Your task to perform on an android device: install app "Venmo" Image 0: 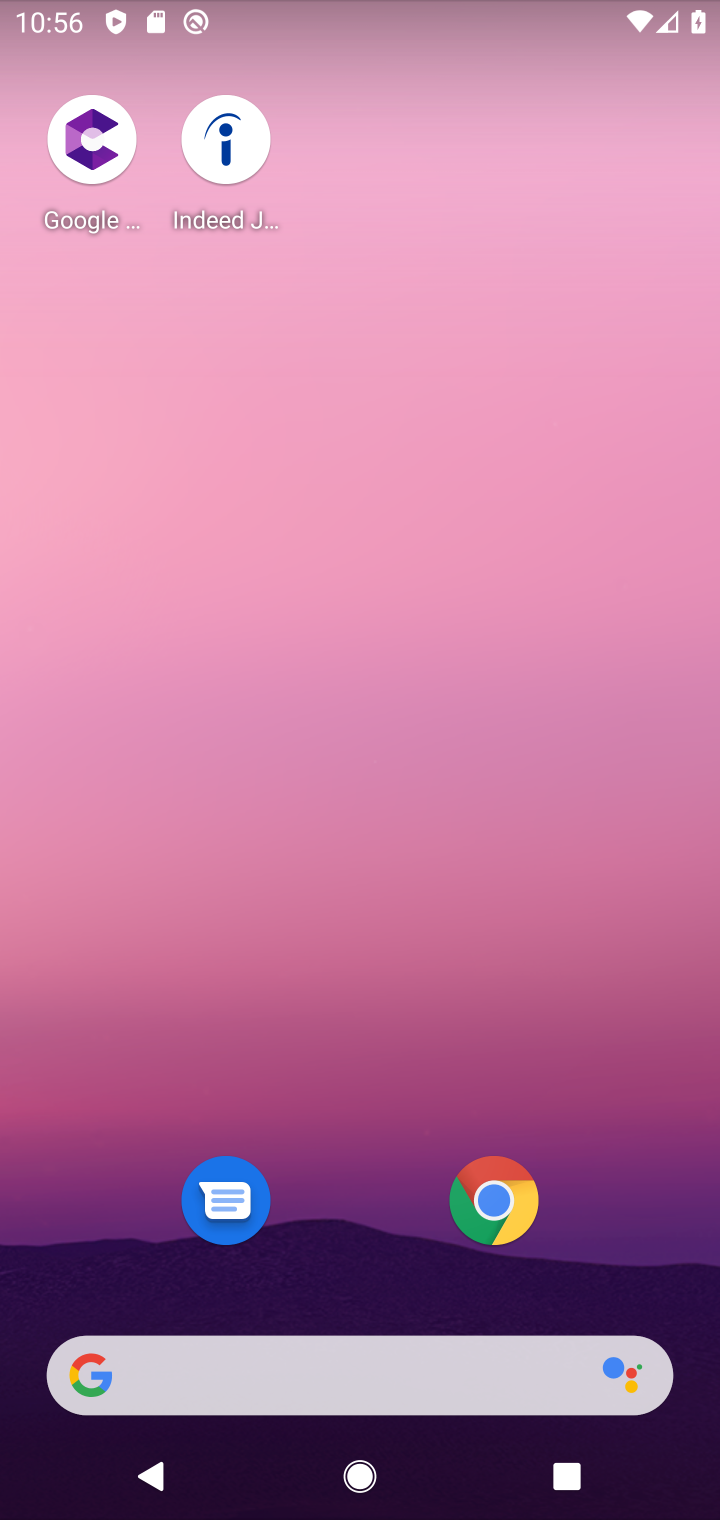
Step 0: drag from (362, 993) to (358, 183)
Your task to perform on an android device: install app "Venmo" Image 1: 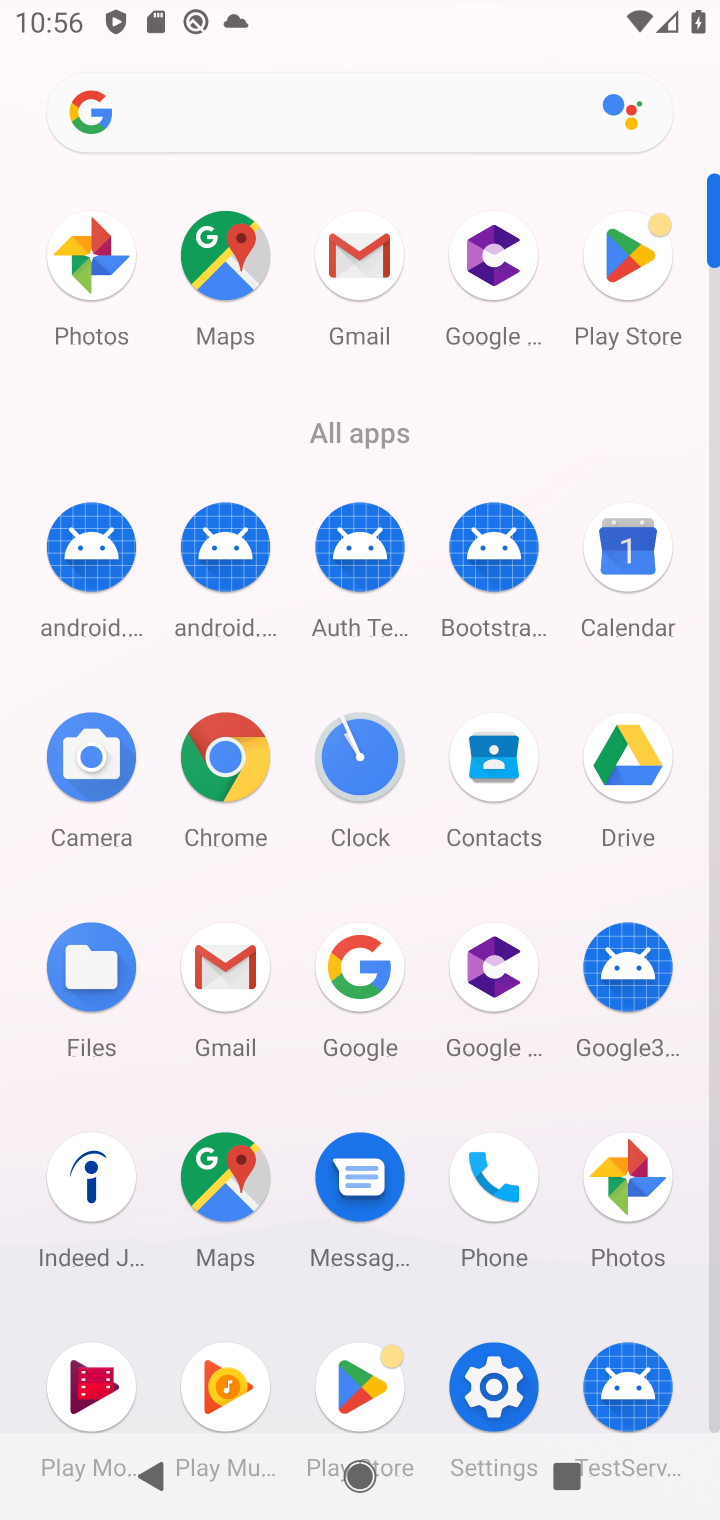
Step 1: click (630, 271)
Your task to perform on an android device: install app "Venmo" Image 2: 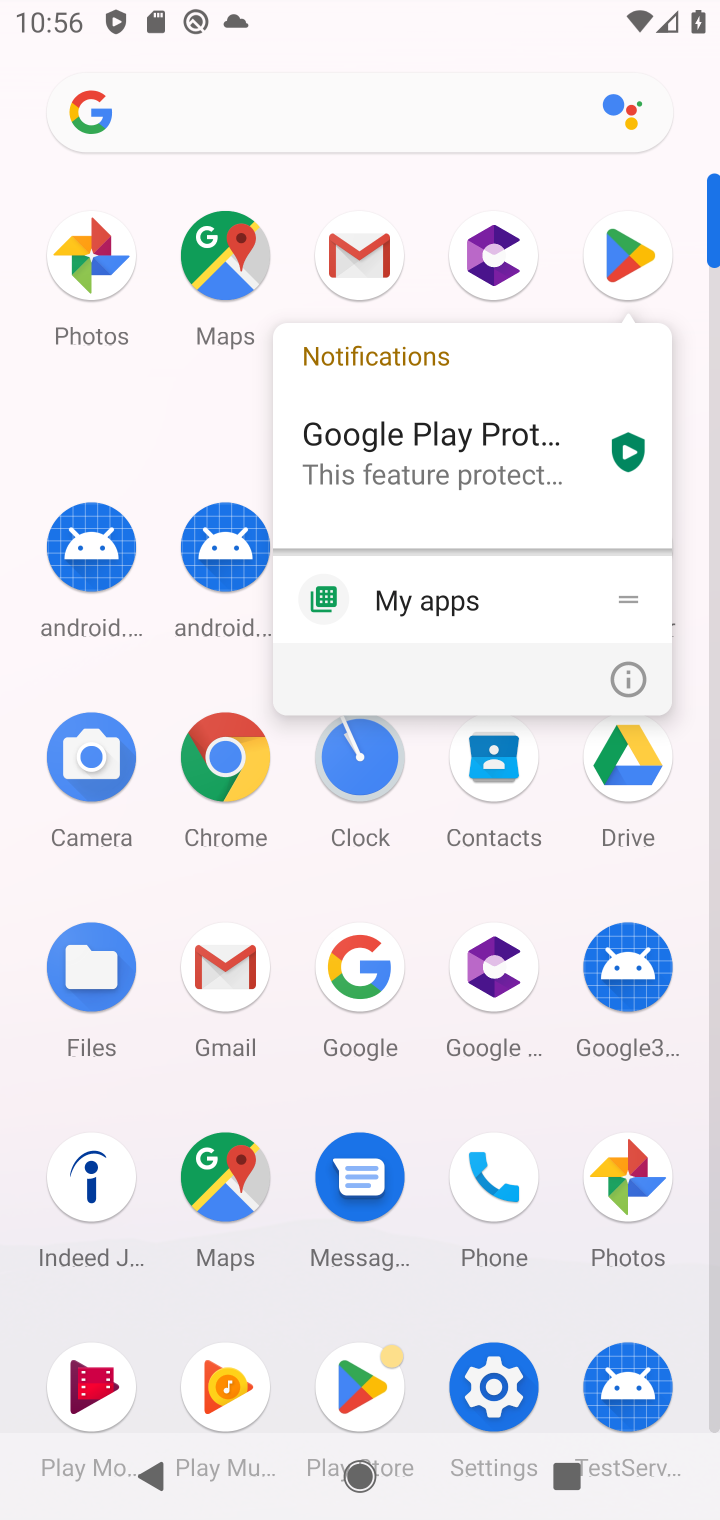
Step 2: click (628, 258)
Your task to perform on an android device: install app "Venmo" Image 3: 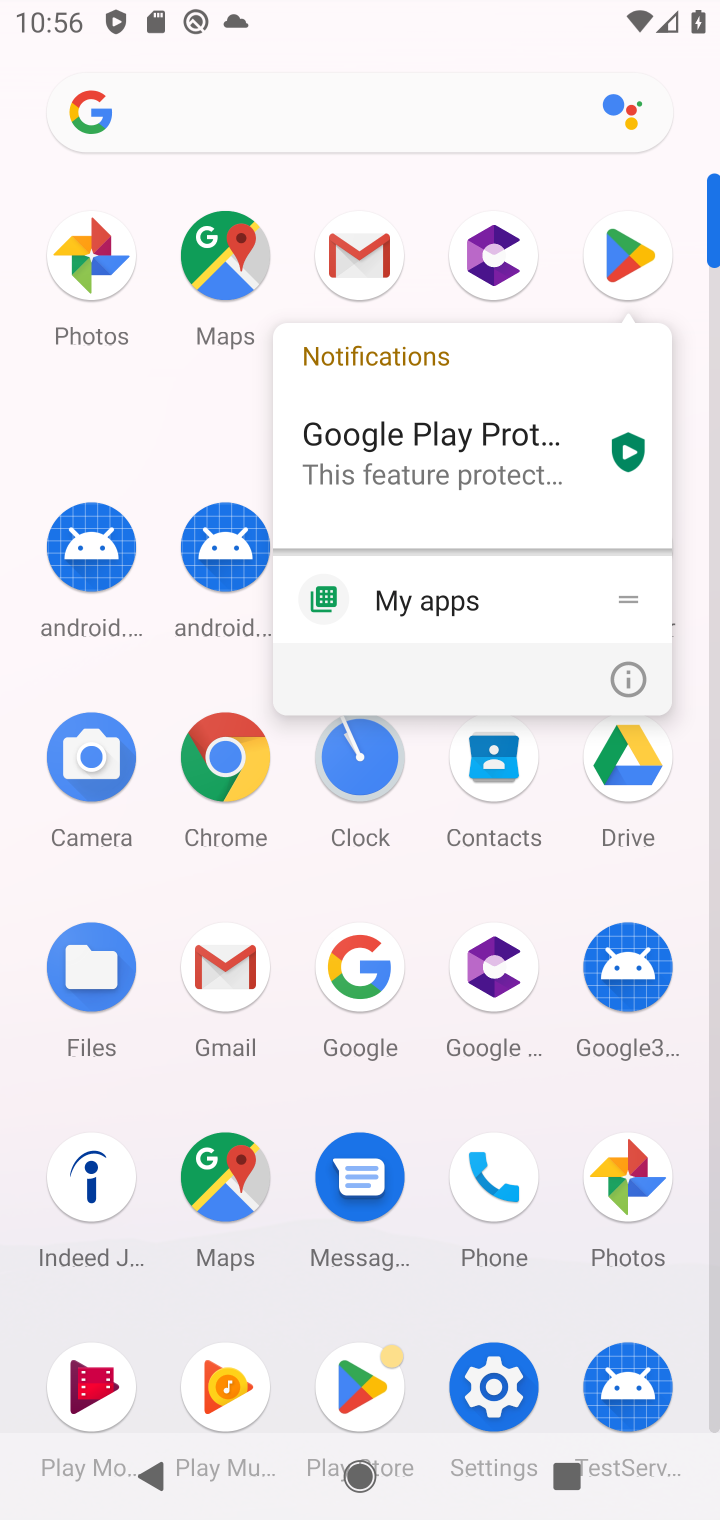
Step 3: click (628, 258)
Your task to perform on an android device: install app "Venmo" Image 4: 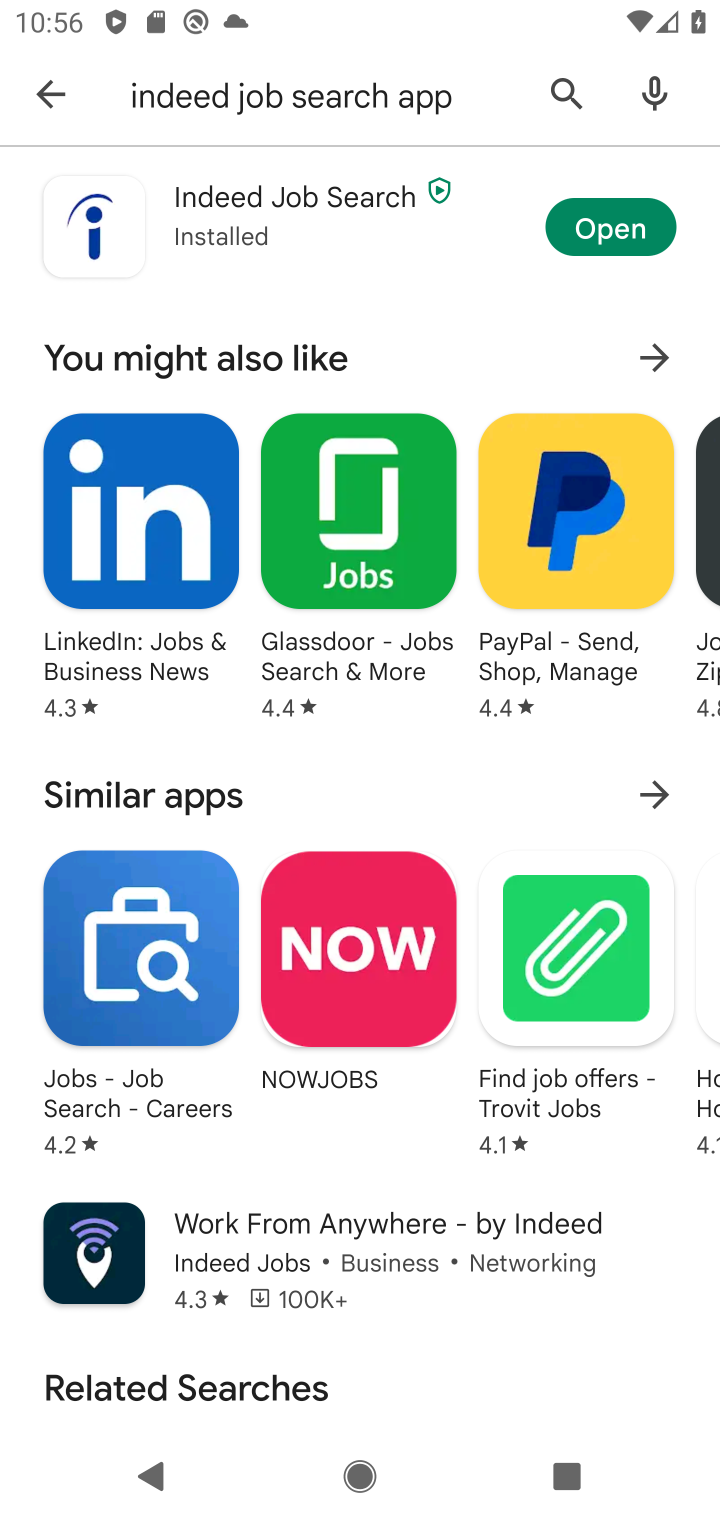
Step 4: click (556, 95)
Your task to perform on an android device: install app "Venmo" Image 5: 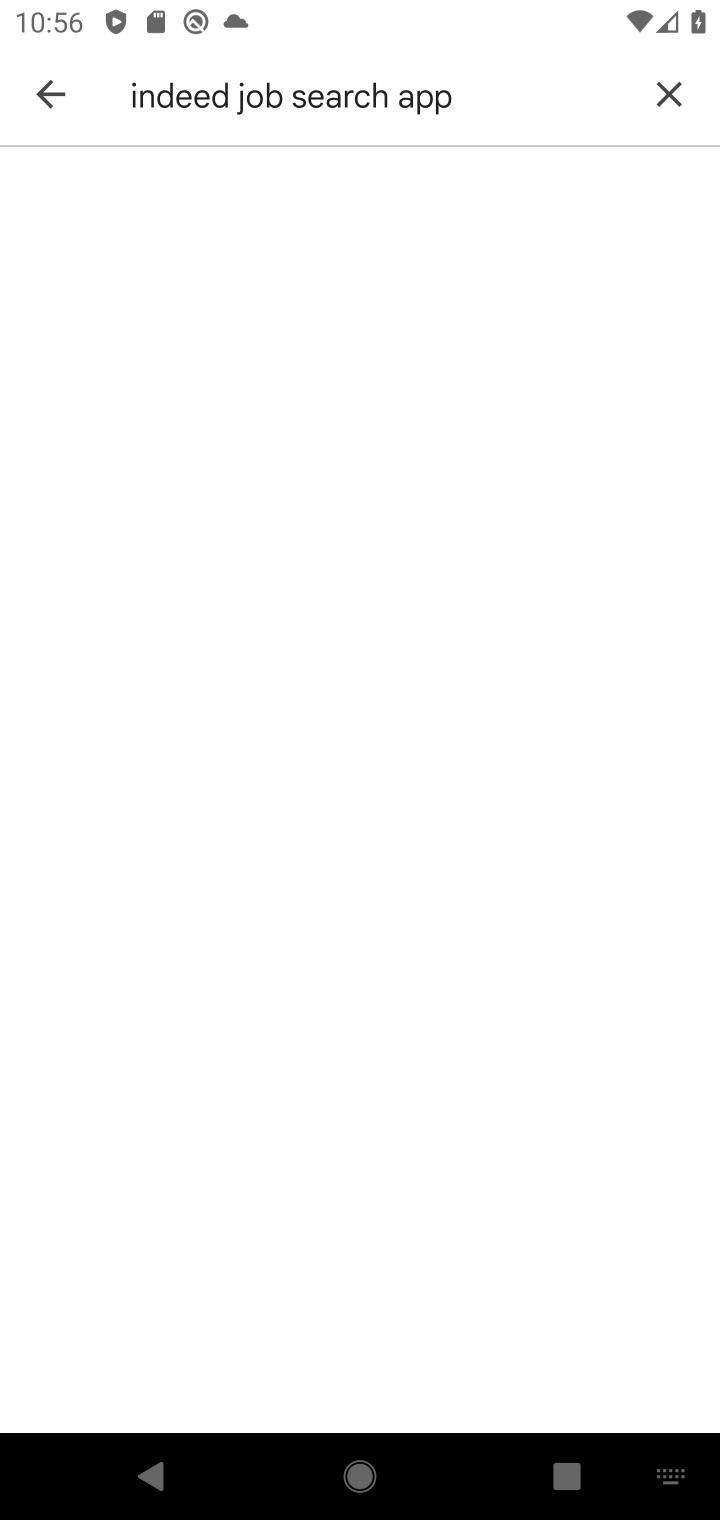
Step 5: click (656, 104)
Your task to perform on an android device: install app "Venmo" Image 6: 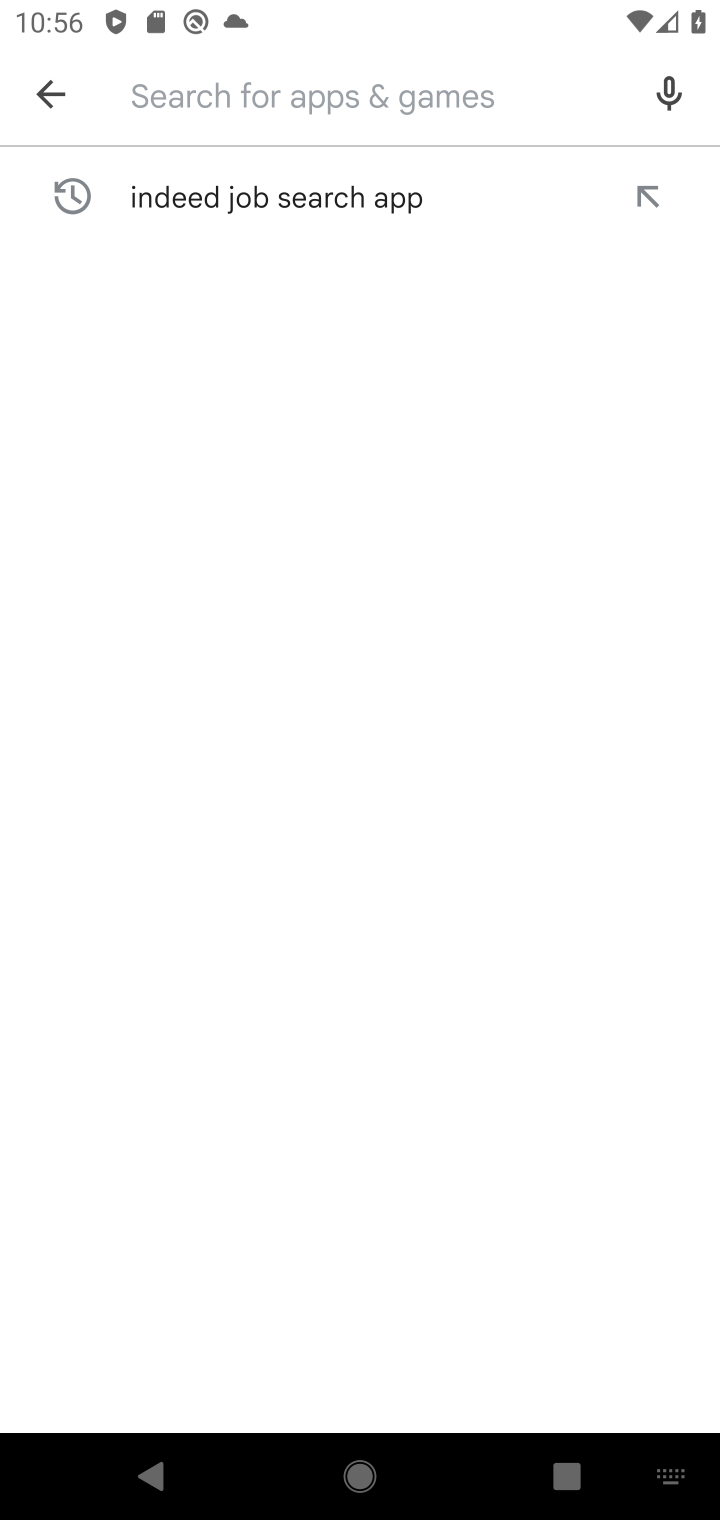
Step 6: type "Venmo"
Your task to perform on an android device: install app "Venmo" Image 7: 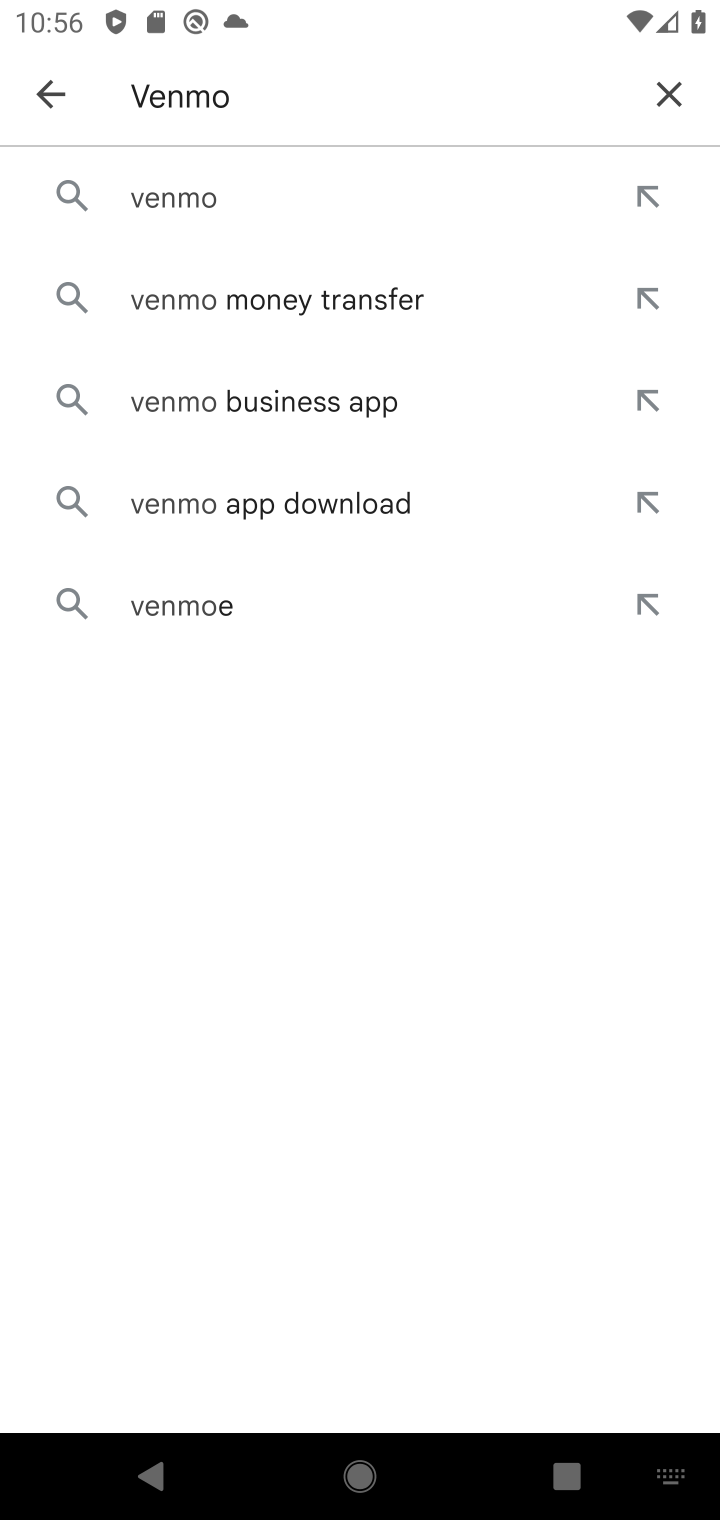
Step 7: click (171, 190)
Your task to perform on an android device: install app "Venmo" Image 8: 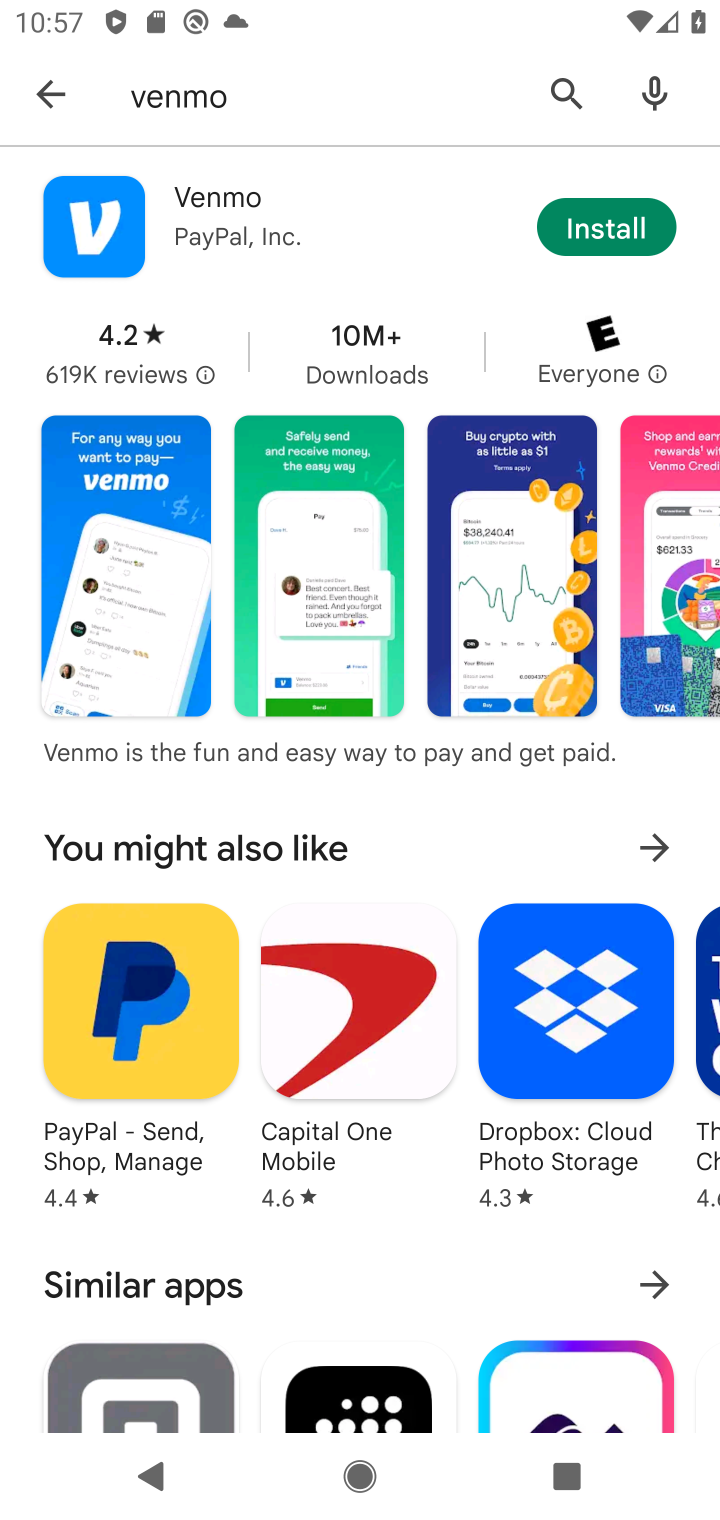
Step 8: click (591, 237)
Your task to perform on an android device: install app "Venmo" Image 9: 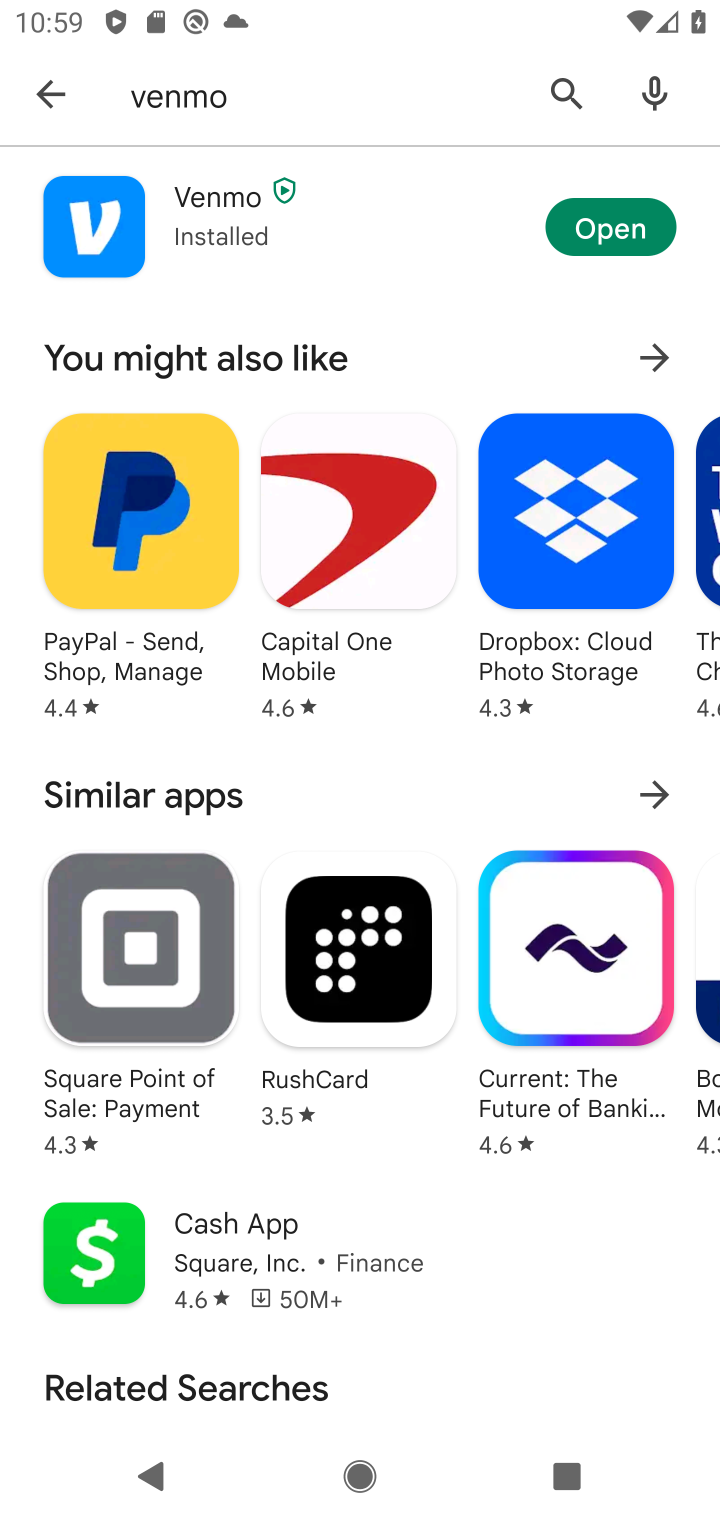
Step 9: task complete